Your task to perform on an android device: check android version Image 0: 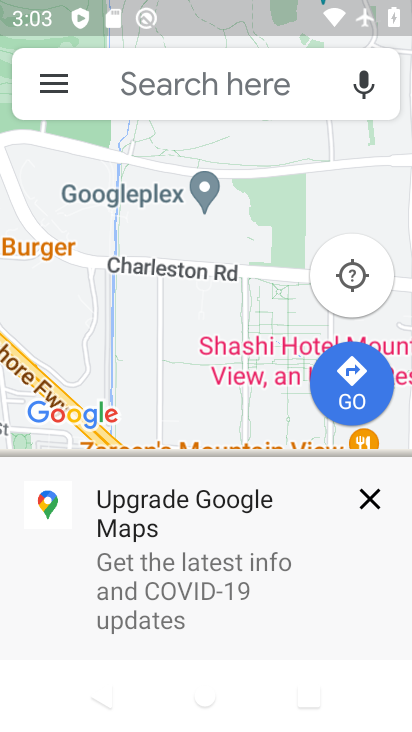
Step 0: press home button
Your task to perform on an android device: check android version Image 1: 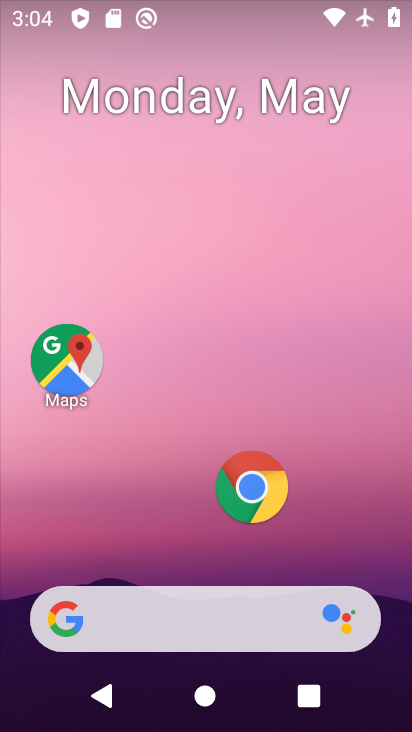
Step 1: drag from (188, 558) to (223, 0)
Your task to perform on an android device: check android version Image 2: 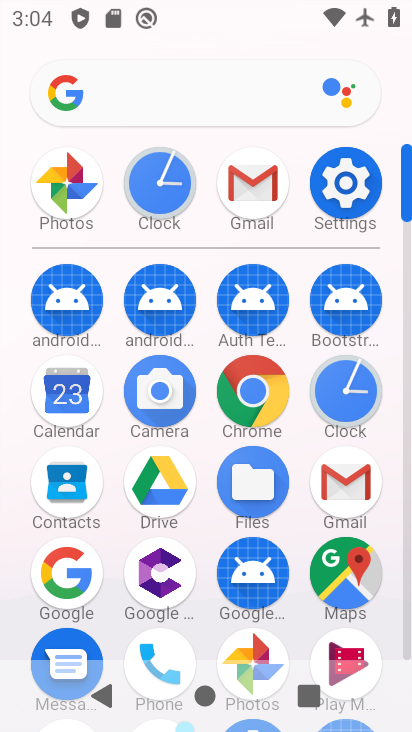
Step 2: click (357, 194)
Your task to perform on an android device: check android version Image 3: 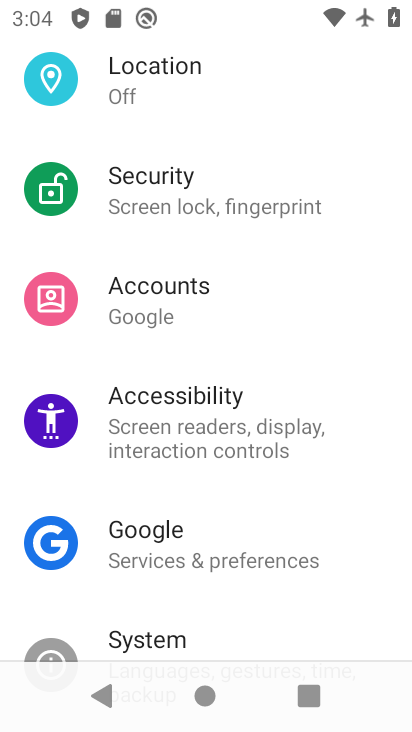
Step 3: drag from (232, 607) to (249, 256)
Your task to perform on an android device: check android version Image 4: 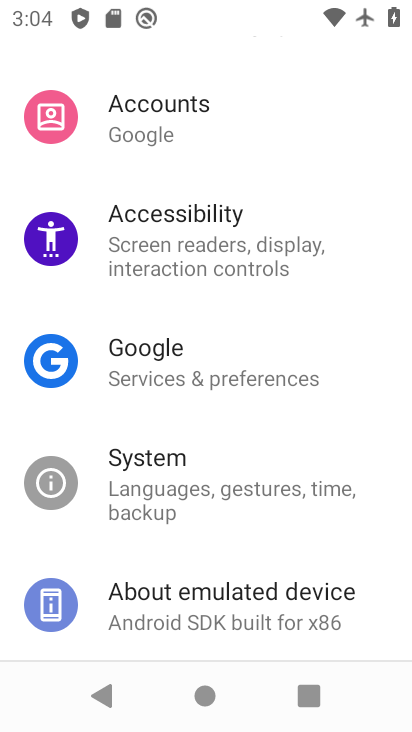
Step 4: click (207, 610)
Your task to perform on an android device: check android version Image 5: 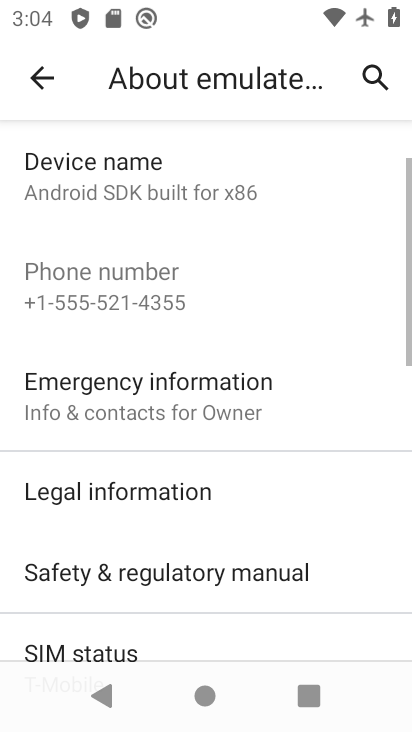
Step 5: drag from (198, 612) to (226, 204)
Your task to perform on an android device: check android version Image 6: 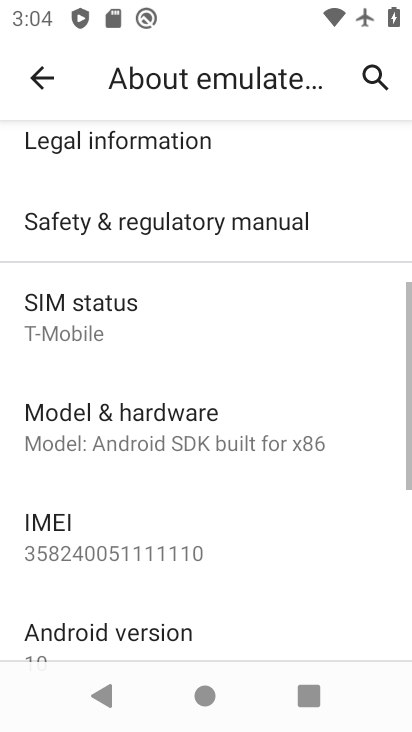
Step 6: drag from (132, 598) to (173, 246)
Your task to perform on an android device: check android version Image 7: 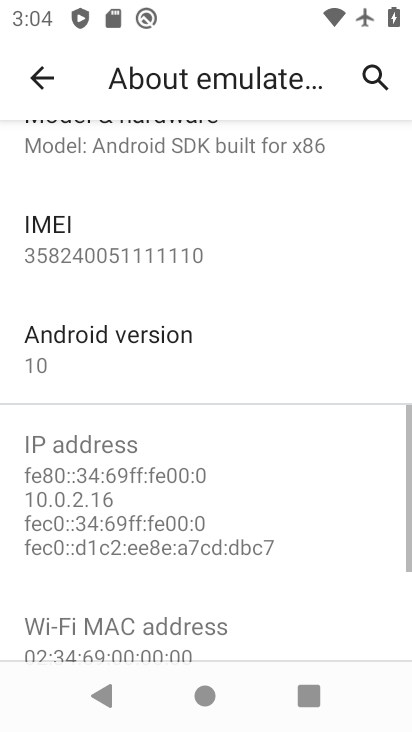
Step 7: click (145, 352)
Your task to perform on an android device: check android version Image 8: 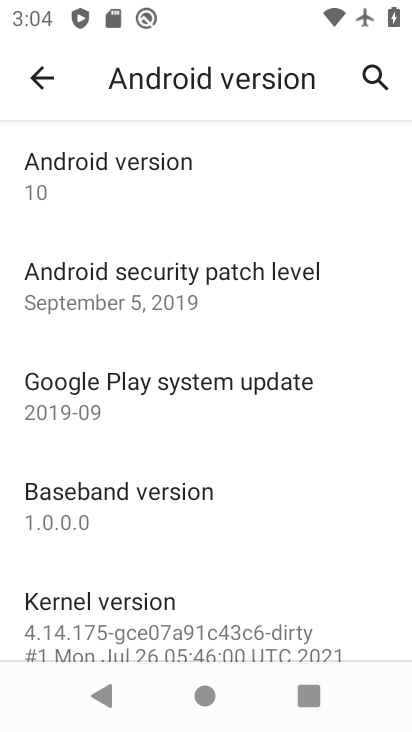
Step 8: click (216, 155)
Your task to perform on an android device: check android version Image 9: 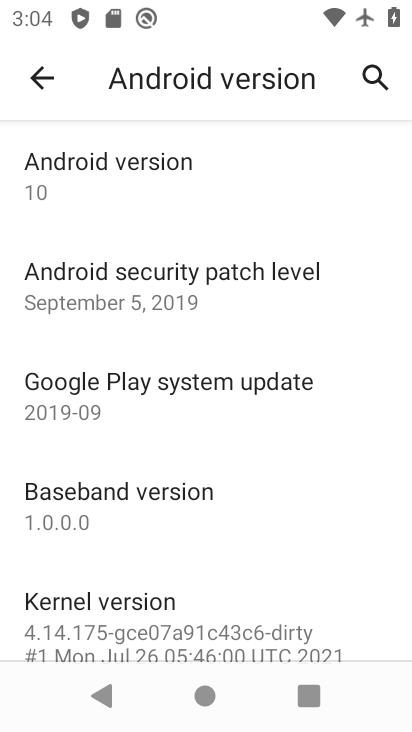
Step 9: task complete